Your task to perform on an android device: Open settings Image 0: 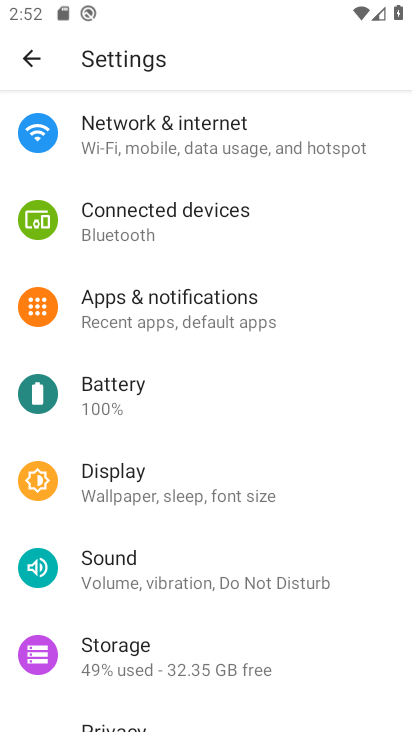
Step 0: drag from (363, 568) to (354, 440)
Your task to perform on an android device: Open settings Image 1: 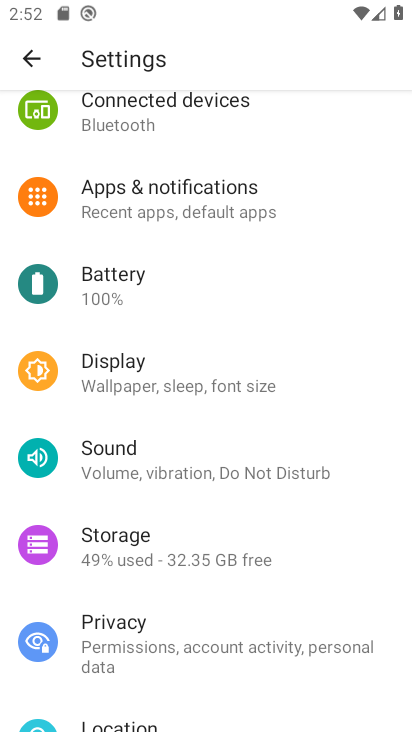
Step 1: task complete